Your task to perform on an android device: allow notifications from all sites in the chrome app Image 0: 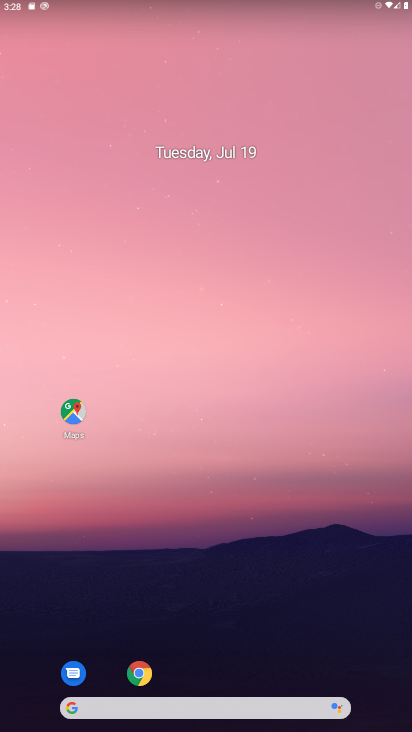
Step 0: drag from (201, 683) to (239, 94)
Your task to perform on an android device: allow notifications from all sites in the chrome app Image 1: 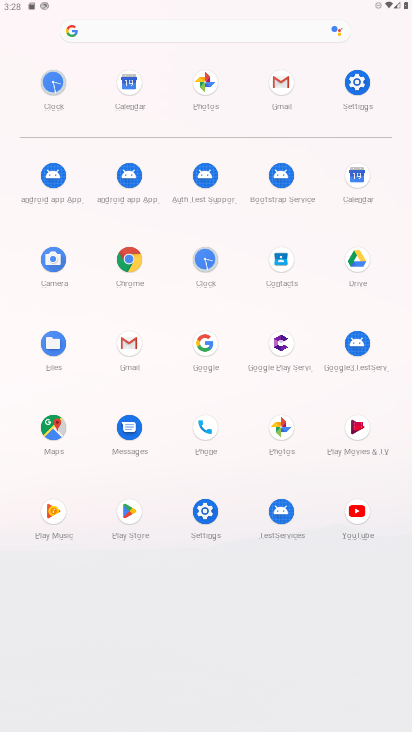
Step 1: click (125, 263)
Your task to perform on an android device: allow notifications from all sites in the chrome app Image 2: 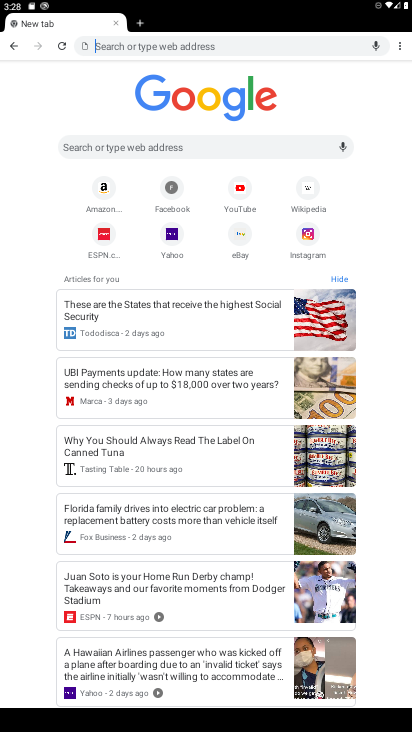
Step 2: click (398, 42)
Your task to perform on an android device: allow notifications from all sites in the chrome app Image 3: 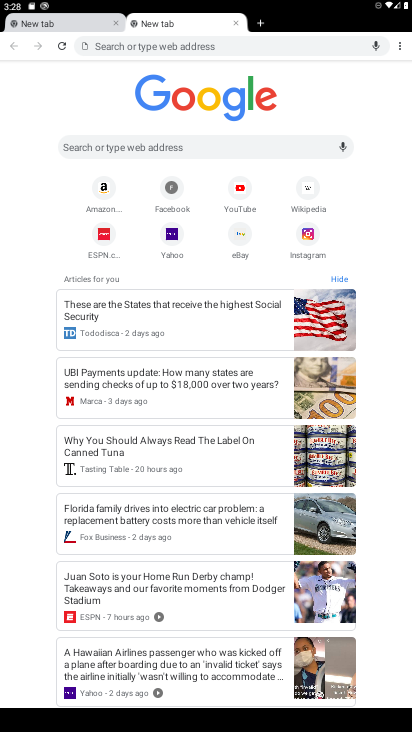
Step 3: click (400, 43)
Your task to perform on an android device: allow notifications from all sites in the chrome app Image 4: 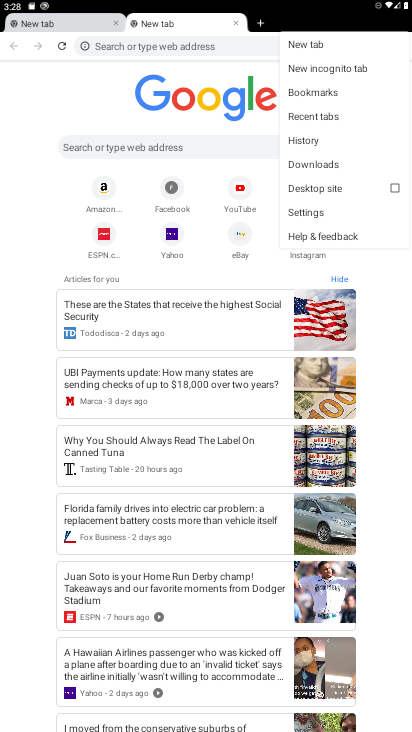
Step 4: click (307, 213)
Your task to perform on an android device: allow notifications from all sites in the chrome app Image 5: 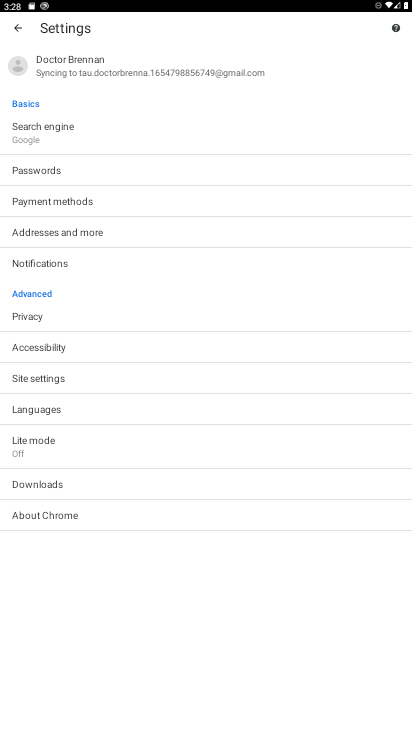
Step 5: click (47, 265)
Your task to perform on an android device: allow notifications from all sites in the chrome app Image 6: 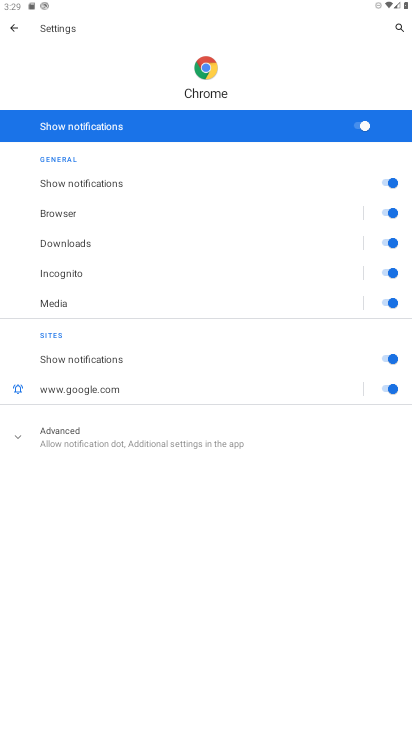
Step 6: task complete